Your task to perform on an android device: Open privacy settings Image 0: 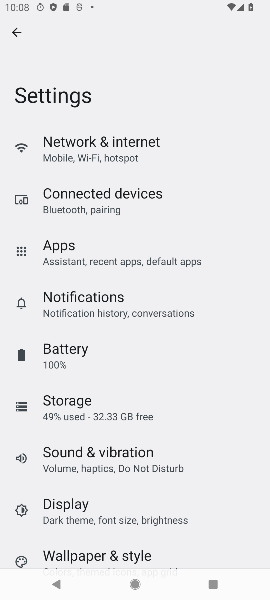
Step 0: press home button
Your task to perform on an android device: Open privacy settings Image 1: 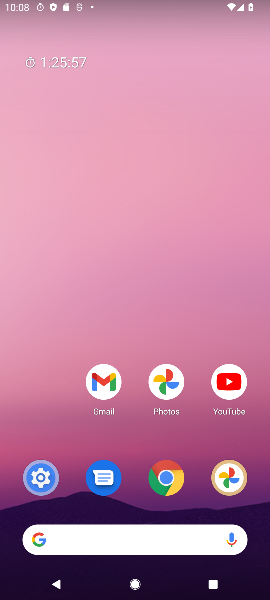
Step 1: drag from (195, 448) to (187, 28)
Your task to perform on an android device: Open privacy settings Image 2: 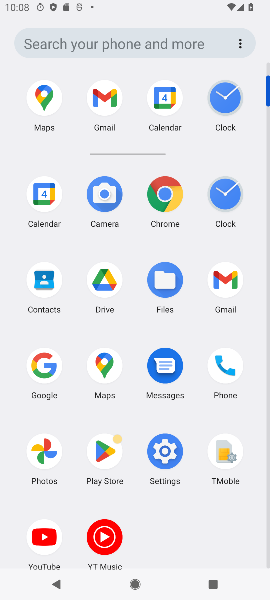
Step 2: click (166, 452)
Your task to perform on an android device: Open privacy settings Image 3: 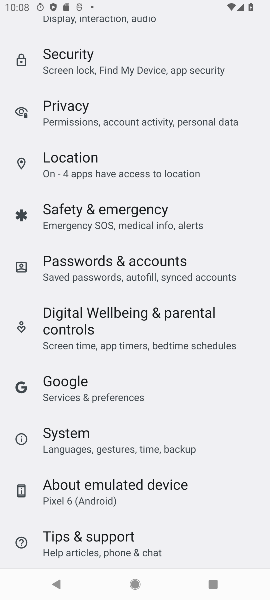
Step 3: click (84, 110)
Your task to perform on an android device: Open privacy settings Image 4: 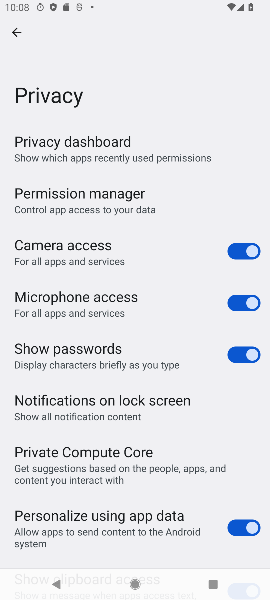
Step 4: task complete